Your task to perform on an android device: See recent photos Image 0: 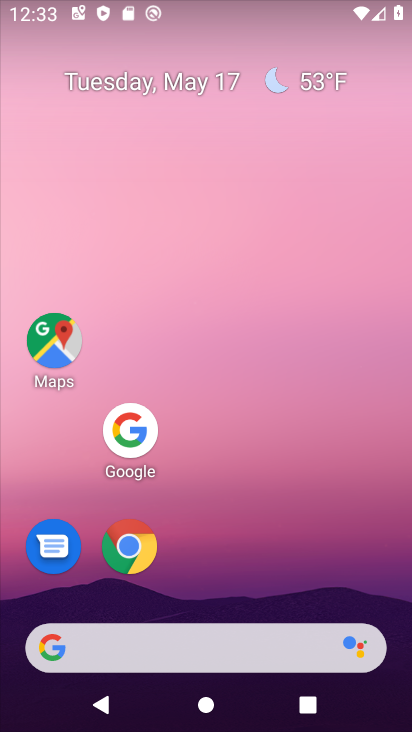
Step 0: drag from (325, 533) to (270, 87)
Your task to perform on an android device: See recent photos Image 1: 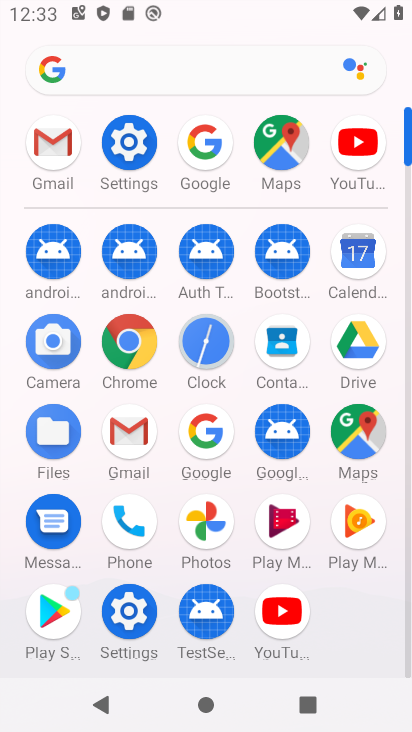
Step 1: click (205, 524)
Your task to perform on an android device: See recent photos Image 2: 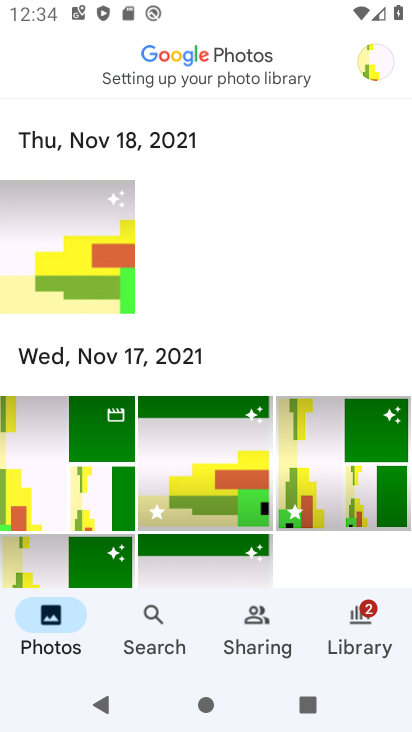
Step 2: task complete